Your task to perform on an android device: Open Chrome and go to the settings page Image 0: 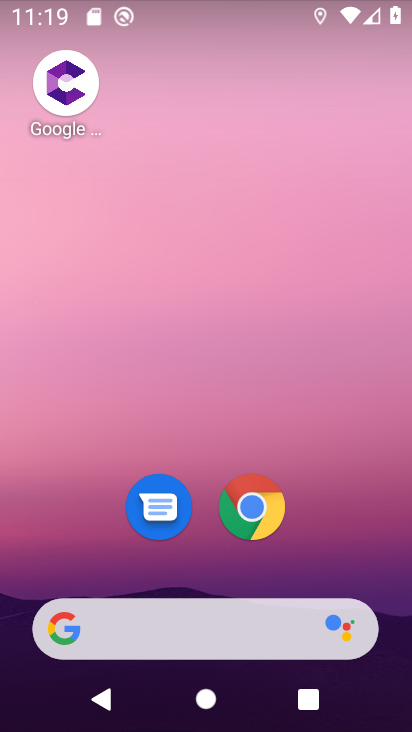
Step 0: click (263, 523)
Your task to perform on an android device: Open Chrome and go to the settings page Image 1: 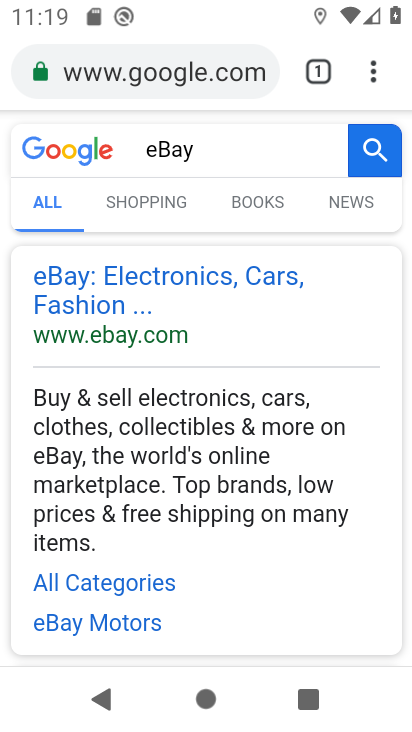
Step 1: click (379, 54)
Your task to perform on an android device: Open Chrome and go to the settings page Image 2: 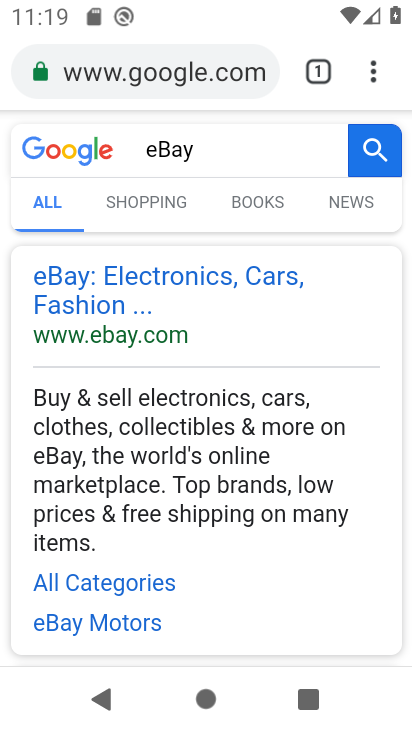
Step 2: click (377, 76)
Your task to perform on an android device: Open Chrome and go to the settings page Image 3: 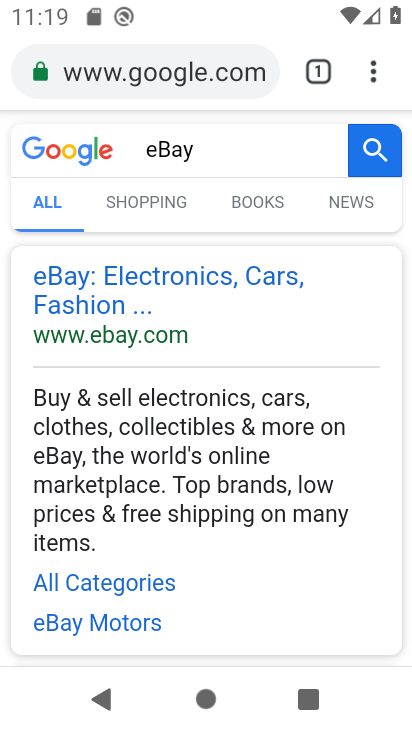
Step 3: click (374, 71)
Your task to perform on an android device: Open Chrome and go to the settings page Image 4: 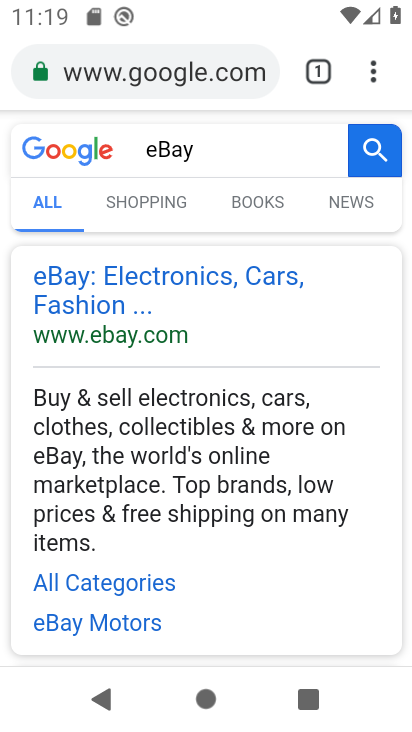
Step 4: click (380, 79)
Your task to perform on an android device: Open Chrome and go to the settings page Image 5: 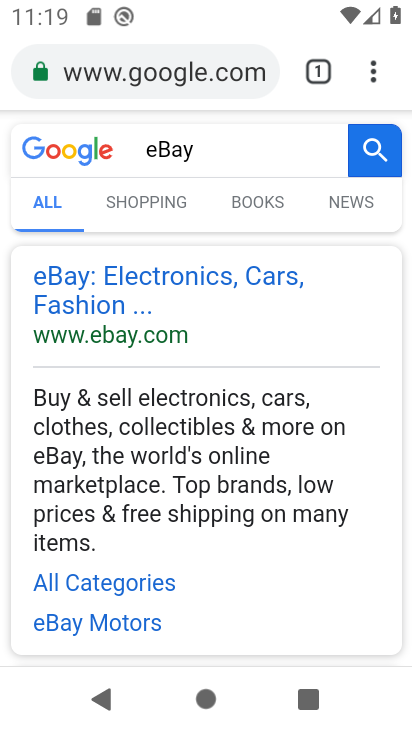
Step 5: drag from (379, 73) to (292, 198)
Your task to perform on an android device: Open Chrome and go to the settings page Image 6: 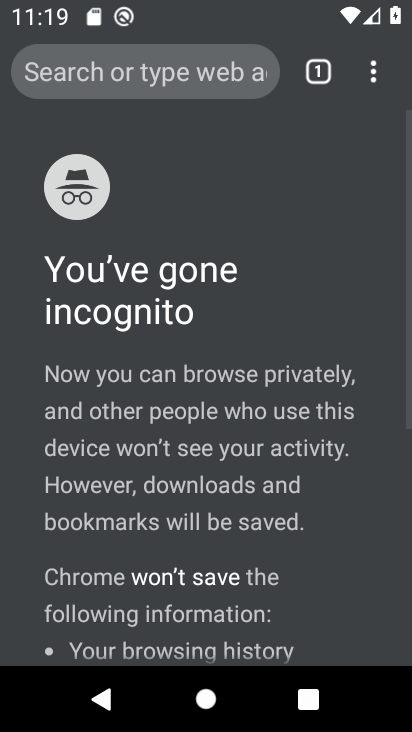
Step 6: drag from (170, 338) to (202, 183)
Your task to perform on an android device: Open Chrome and go to the settings page Image 7: 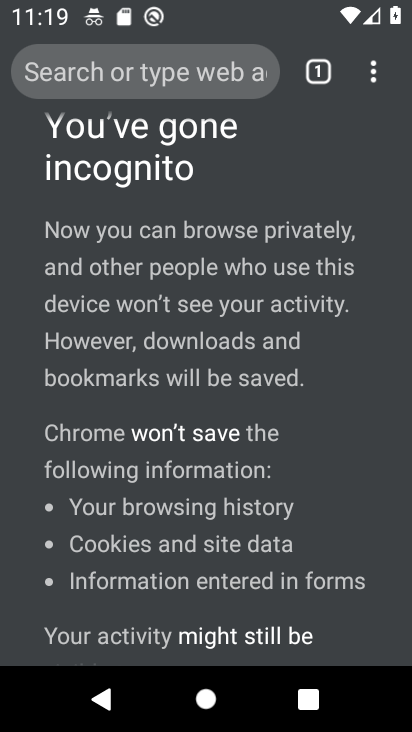
Step 7: click (380, 72)
Your task to perform on an android device: Open Chrome and go to the settings page Image 8: 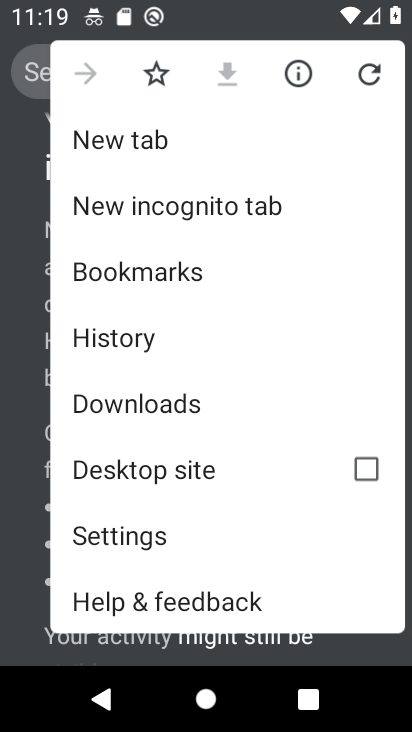
Step 8: click (172, 147)
Your task to perform on an android device: Open Chrome and go to the settings page Image 9: 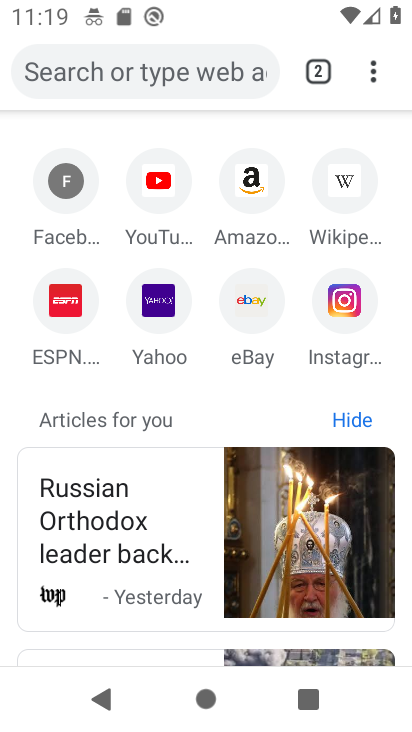
Step 9: click (367, 71)
Your task to perform on an android device: Open Chrome and go to the settings page Image 10: 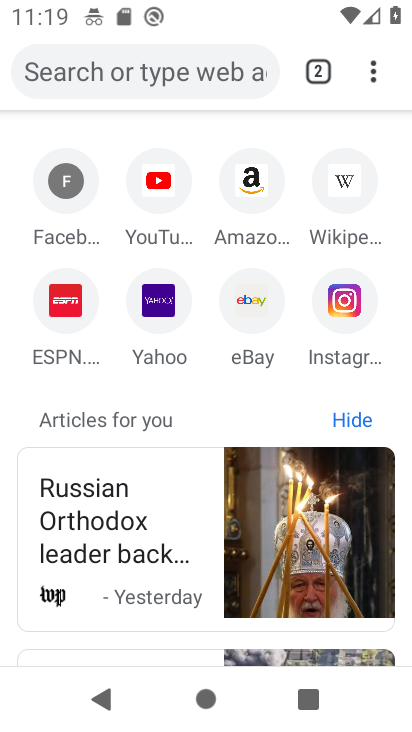
Step 10: click (374, 61)
Your task to perform on an android device: Open Chrome and go to the settings page Image 11: 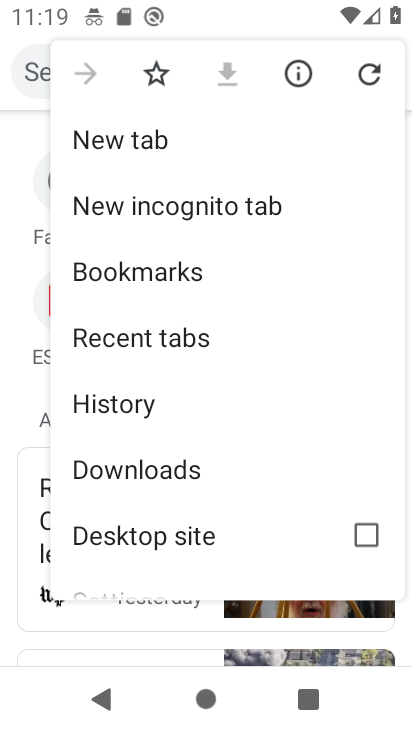
Step 11: drag from (128, 465) to (200, 117)
Your task to perform on an android device: Open Chrome and go to the settings page Image 12: 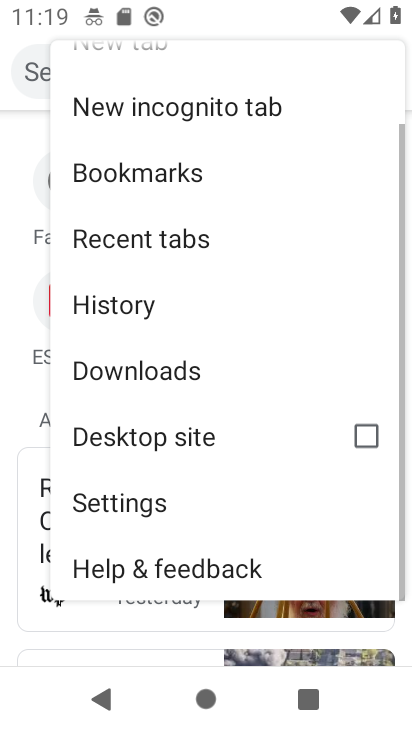
Step 12: click (111, 502)
Your task to perform on an android device: Open Chrome and go to the settings page Image 13: 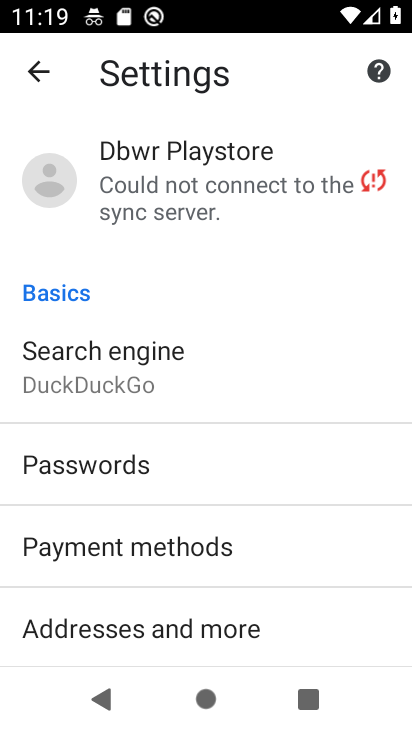
Step 13: task complete